Your task to perform on an android device: choose inbox layout in the gmail app Image 0: 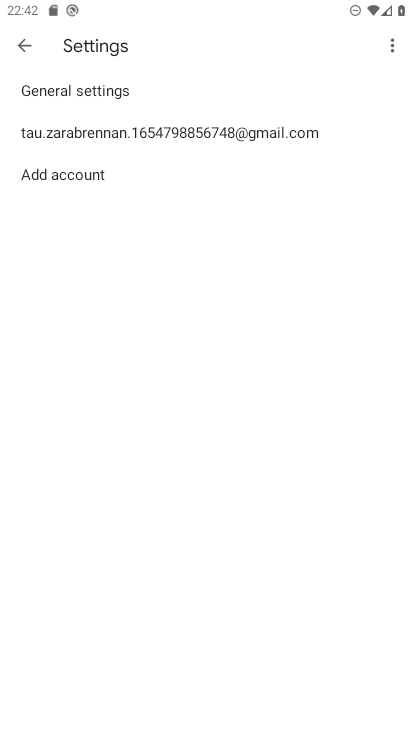
Step 0: press home button
Your task to perform on an android device: choose inbox layout in the gmail app Image 1: 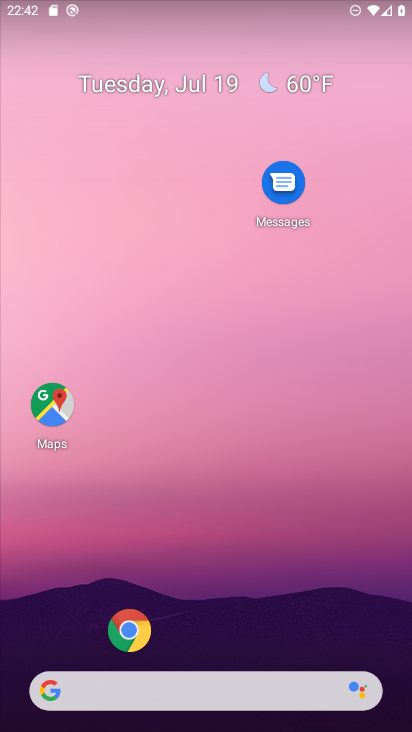
Step 1: drag from (15, 649) to (237, 140)
Your task to perform on an android device: choose inbox layout in the gmail app Image 2: 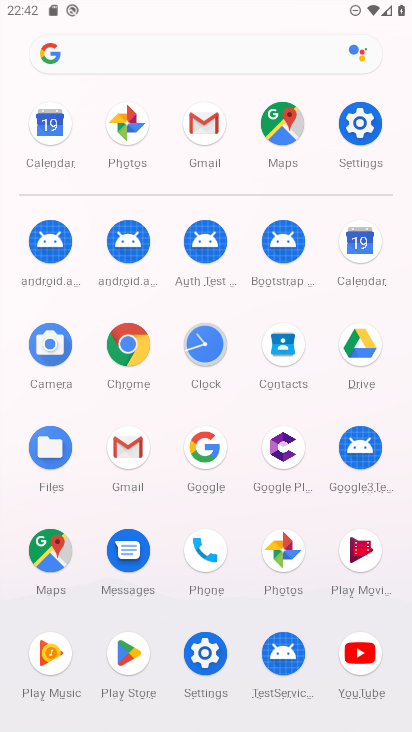
Step 2: click (121, 449)
Your task to perform on an android device: choose inbox layout in the gmail app Image 3: 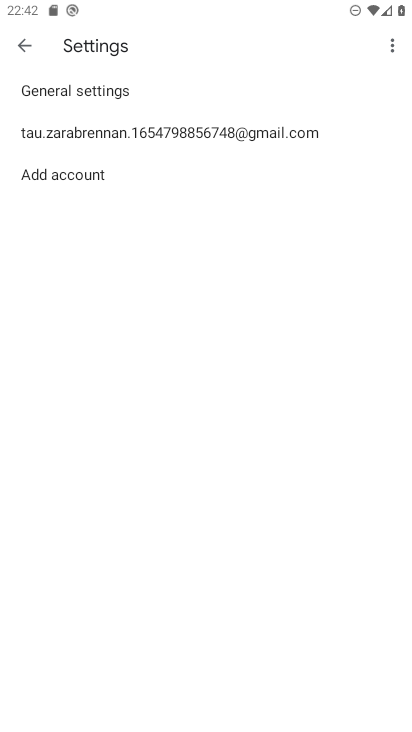
Step 3: click (26, 50)
Your task to perform on an android device: choose inbox layout in the gmail app Image 4: 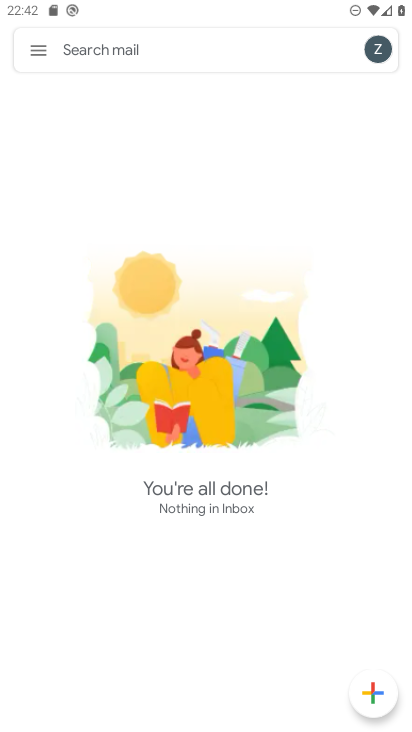
Step 4: click (41, 46)
Your task to perform on an android device: choose inbox layout in the gmail app Image 5: 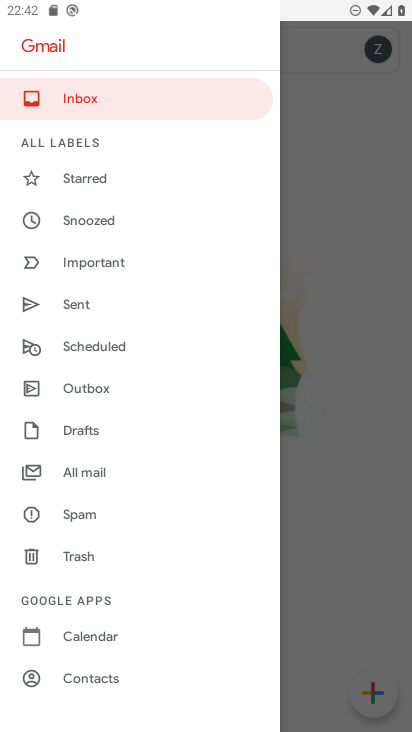
Step 5: drag from (162, 678) to (189, 360)
Your task to perform on an android device: choose inbox layout in the gmail app Image 6: 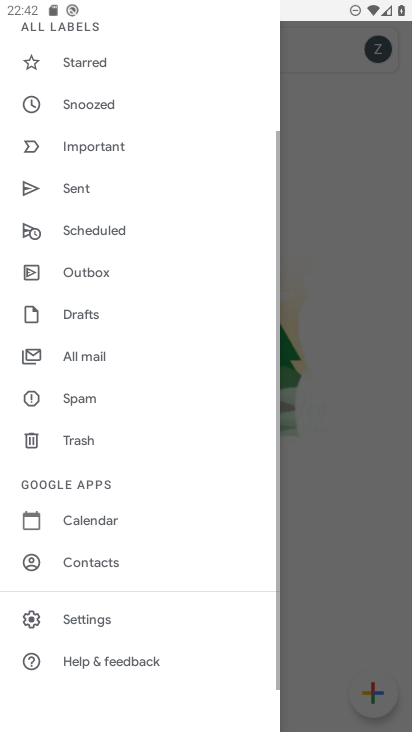
Step 6: click (104, 611)
Your task to perform on an android device: choose inbox layout in the gmail app Image 7: 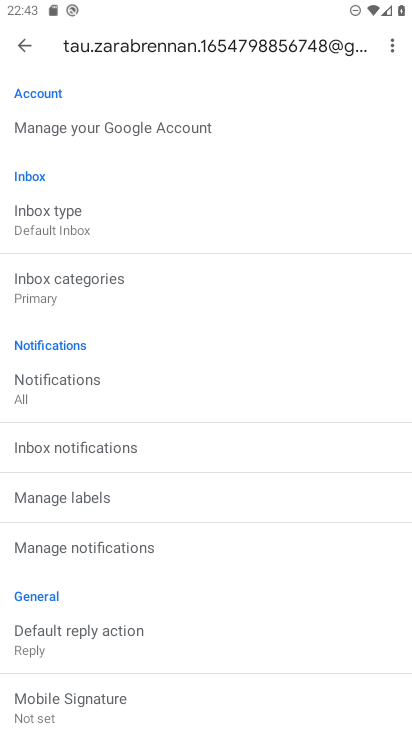
Step 7: task complete